Your task to perform on an android device: Play the last video I watched on Youtube Image 0: 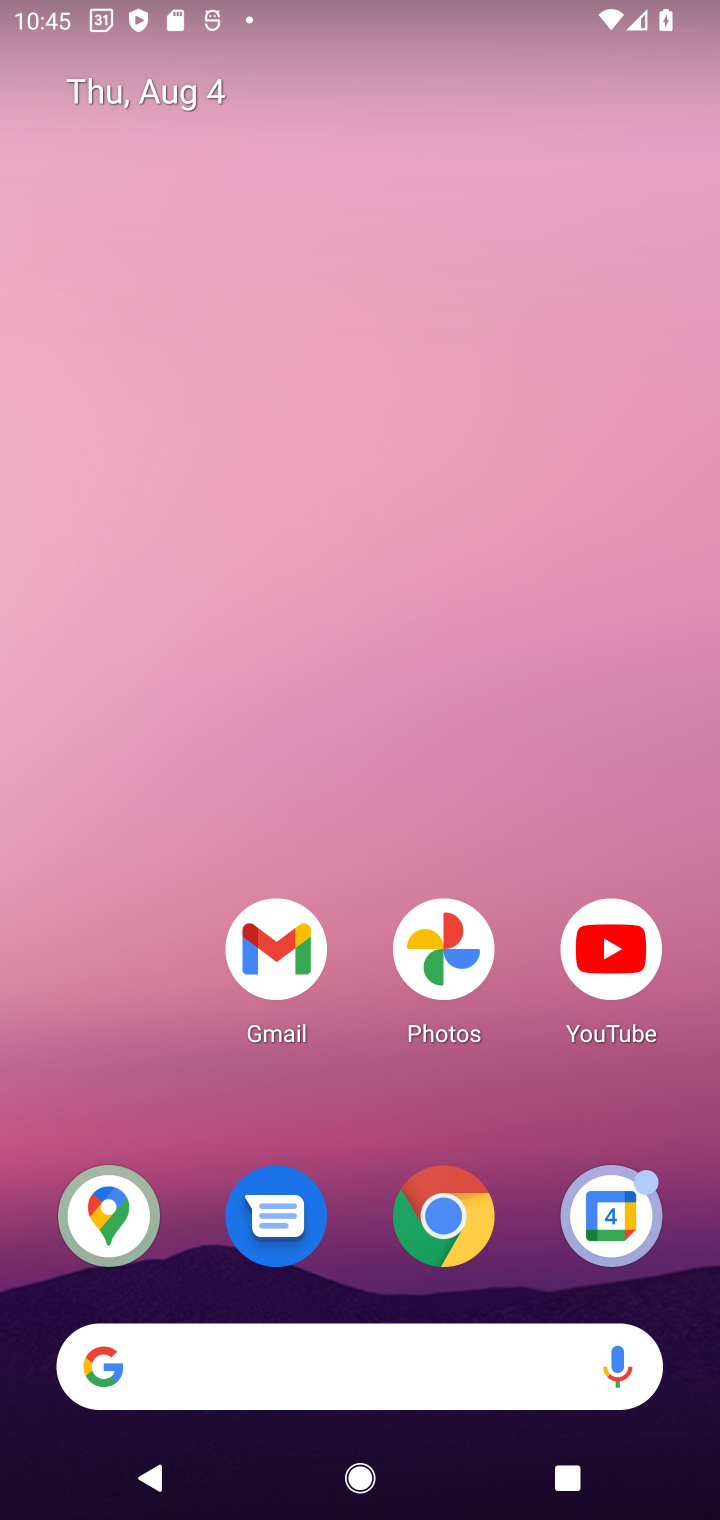
Step 0: click (610, 957)
Your task to perform on an android device: Play the last video I watched on Youtube Image 1: 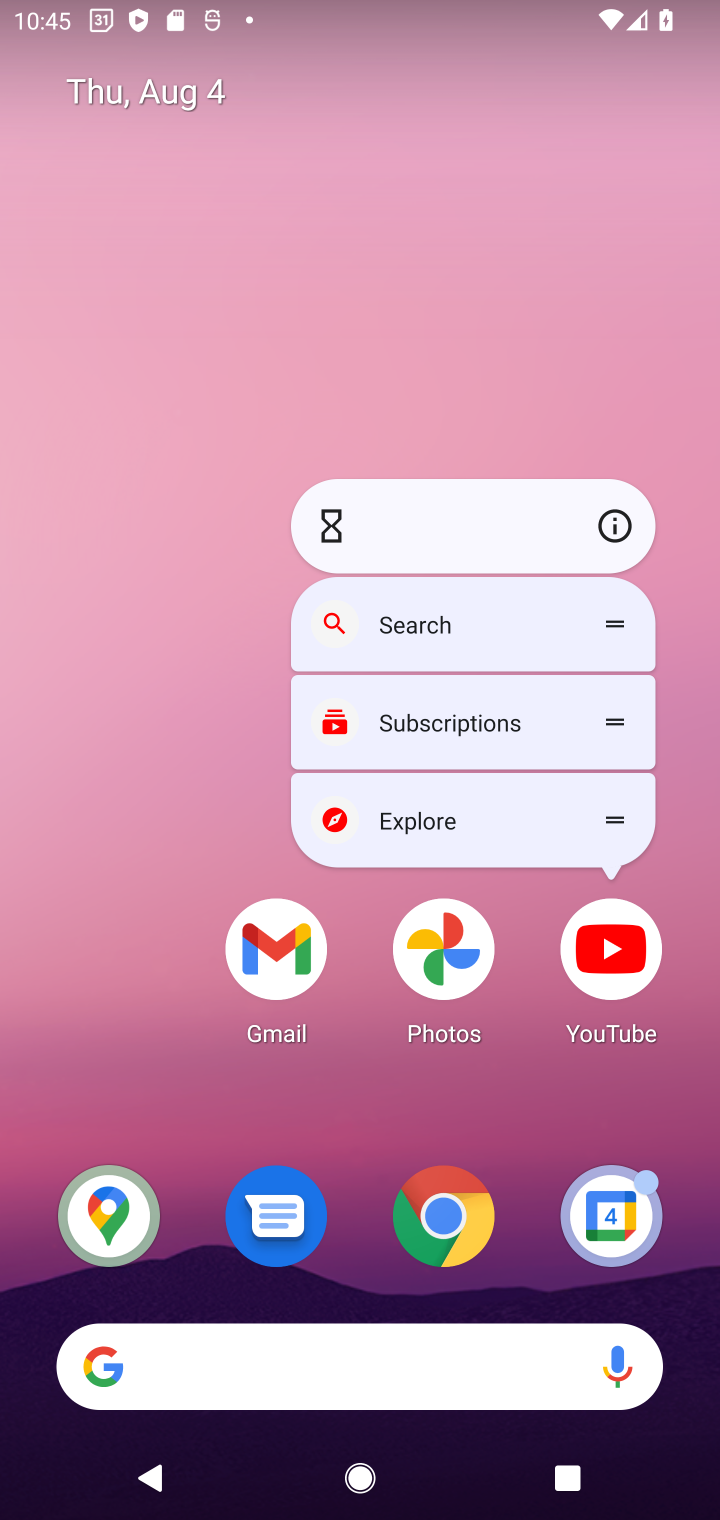
Step 1: click (614, 944)
Your task to perform on an android device: Play the last video I watched on Youtube Image 2: 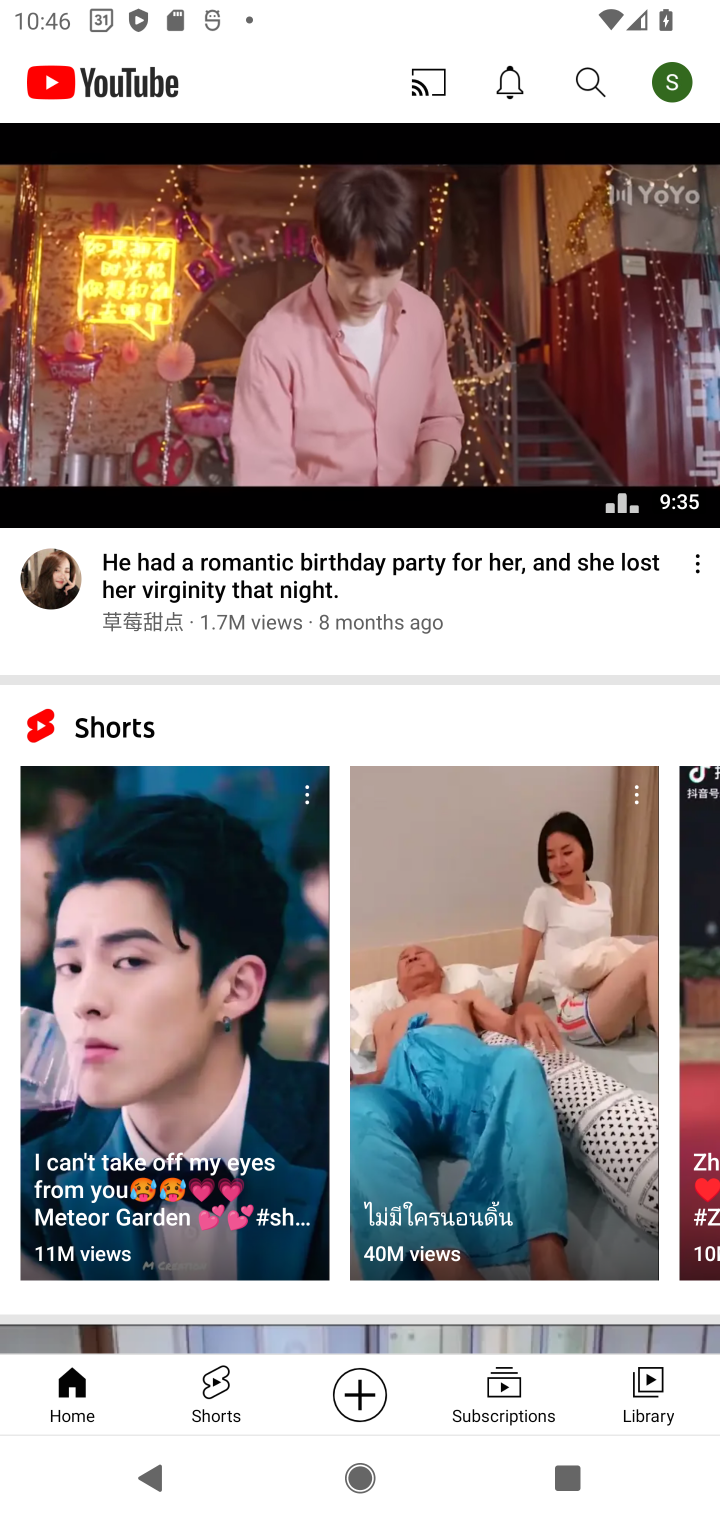
Step 2: click (646, 1378)
Your task to perform on an android device: Play the last video I watched on Youtube Image 3: 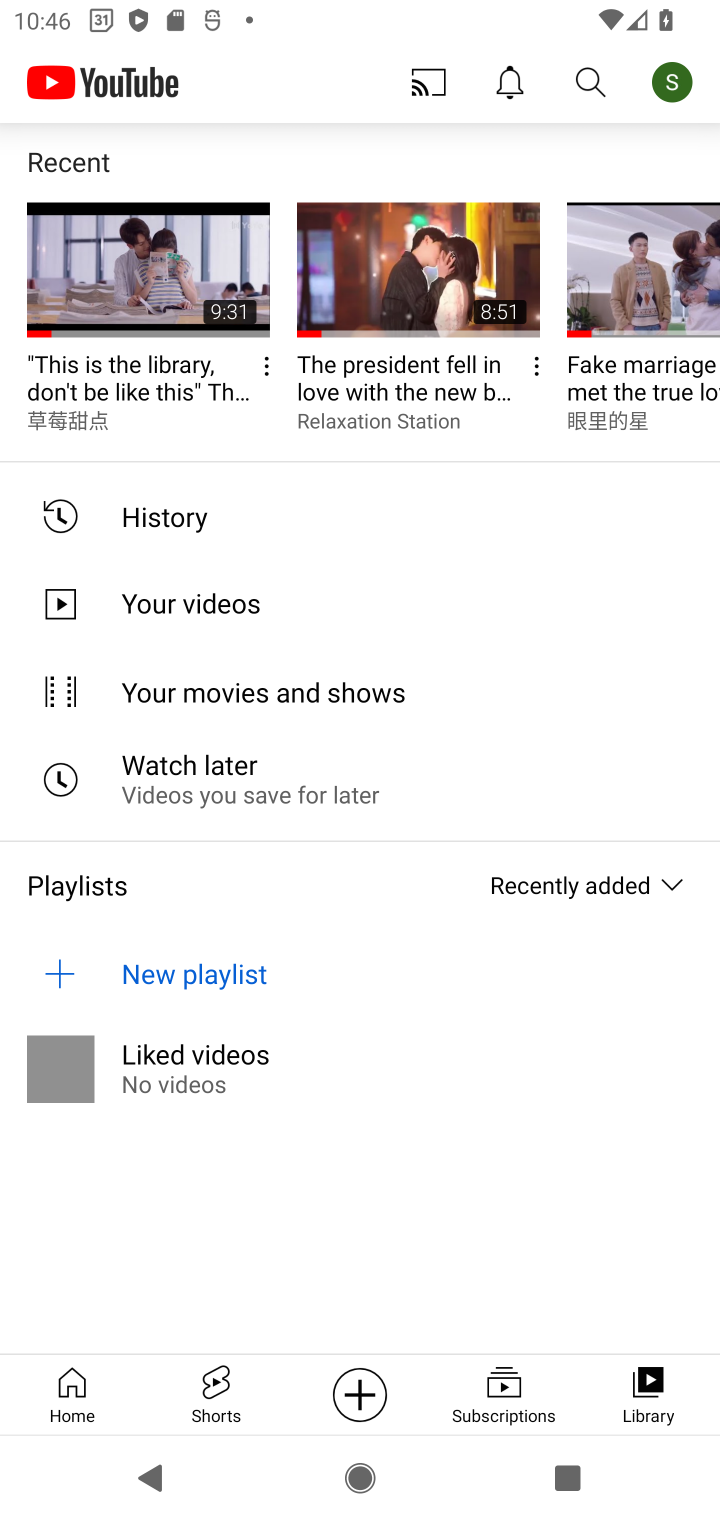
Step 3: click (193, 517)
Your task to perform on an android device: Play the last video I watched on Youtube Image 4: 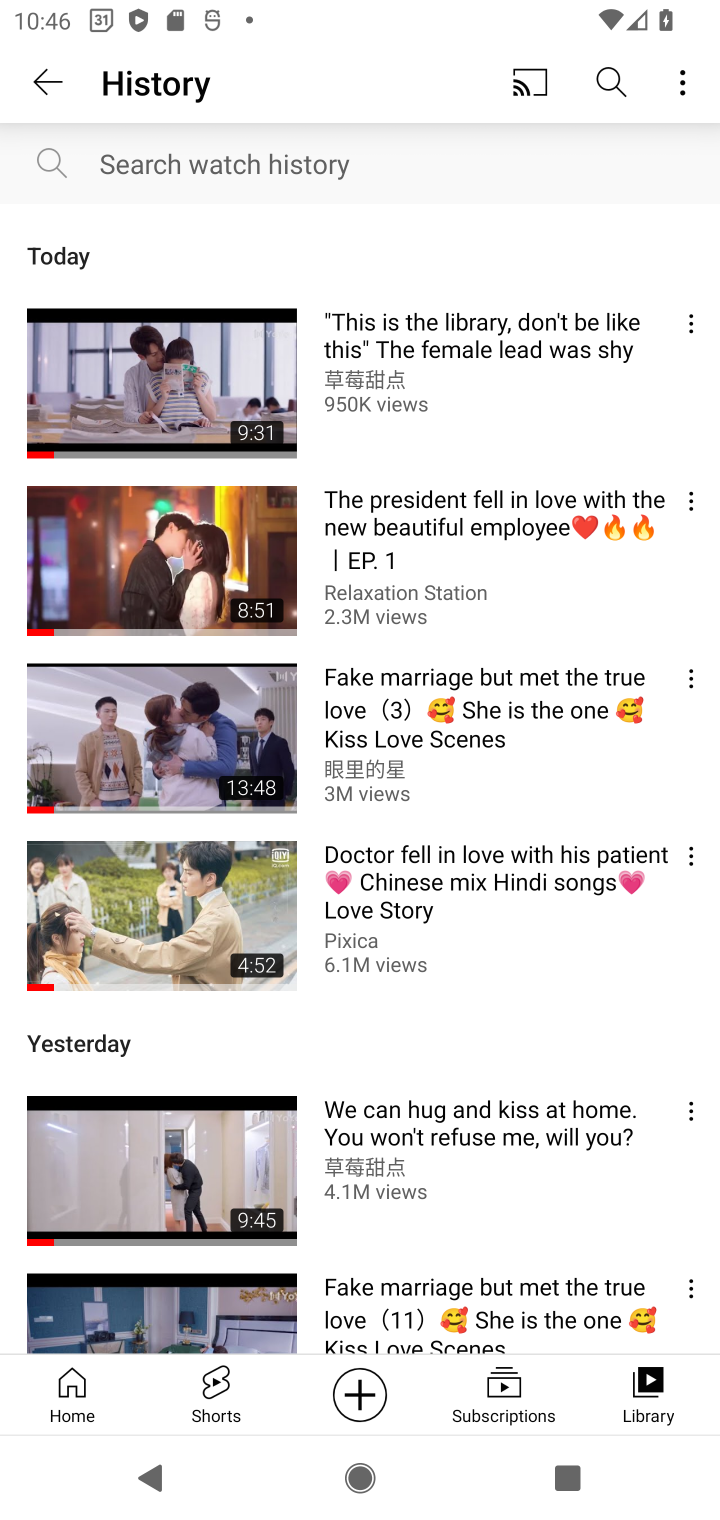
Step 4: click (433, 340)
Your task to perform on an android device: Play the last video I watched on Youtube Image 5: 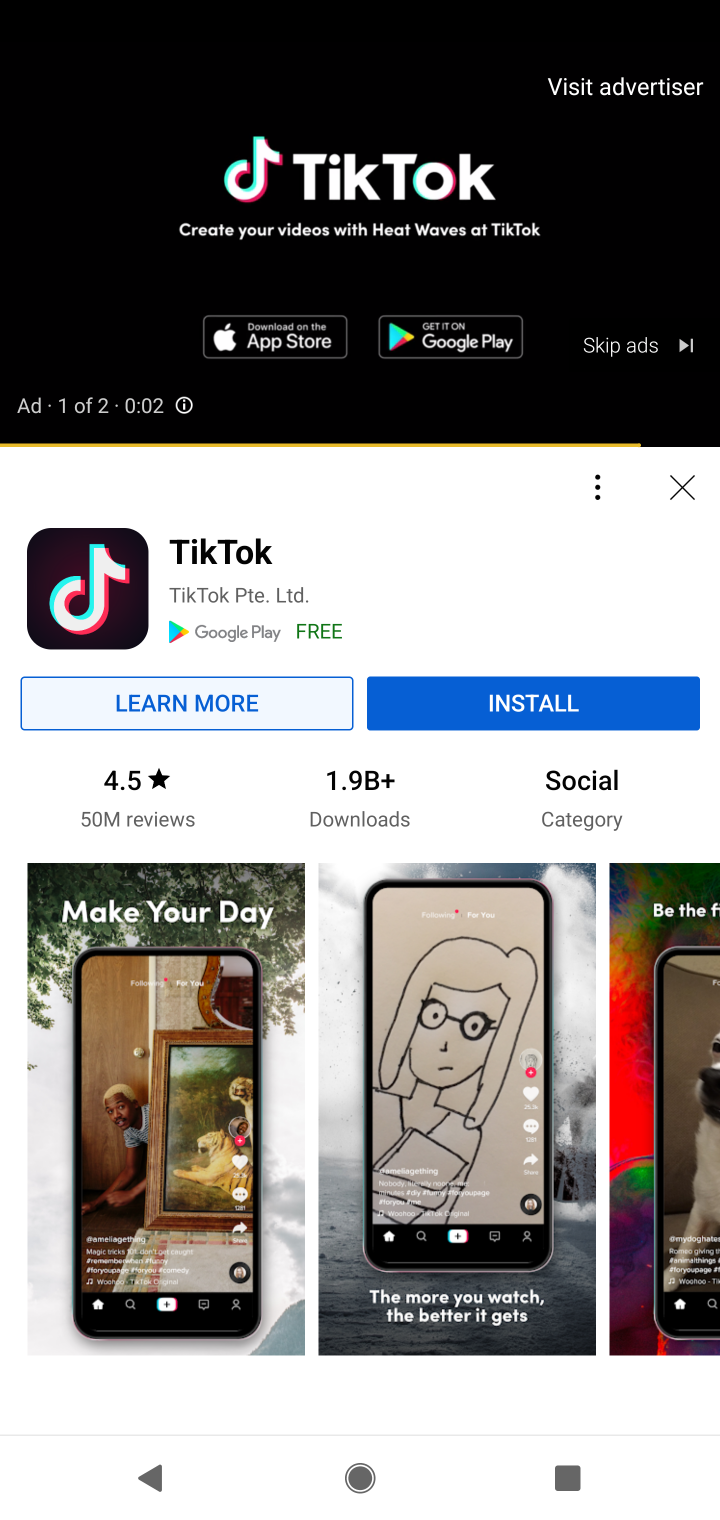
Step 5: click (618, 351)
Your task to perform on an android device: Play the last video I watched on Youtube Image 6: 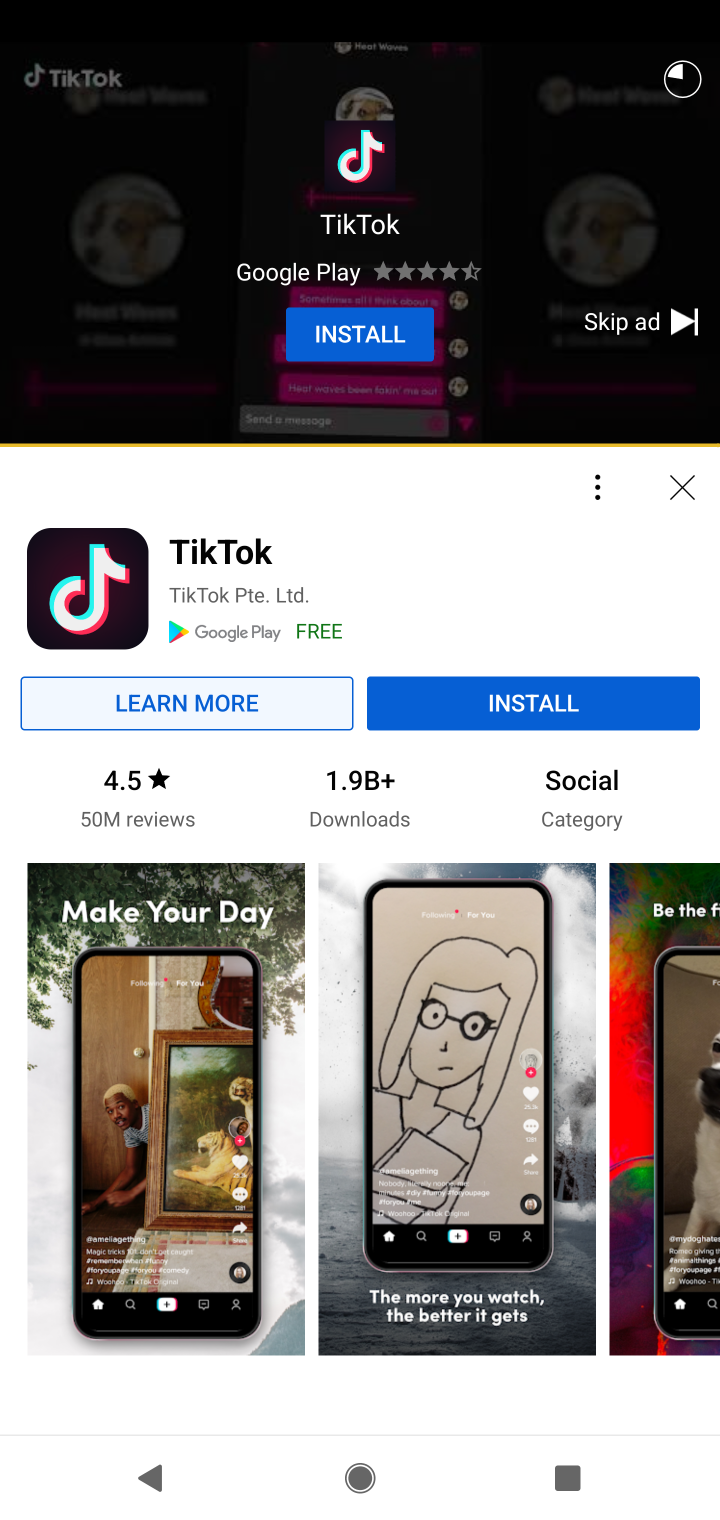
Step 6: click (636, 337)
Your task to perform on an android device: Play the last video I watched on Youtube Image 7: 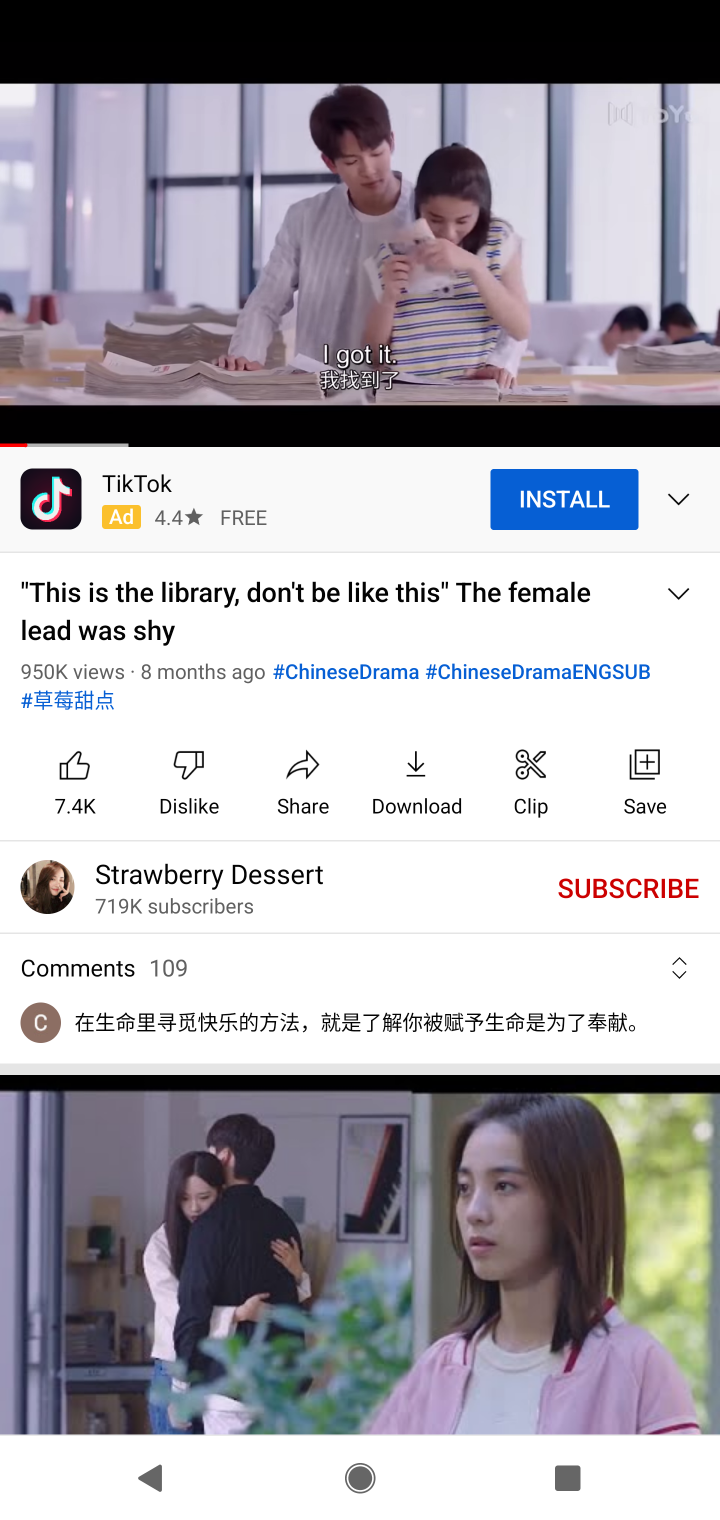
Step 7: task complete